Your task to perform on an android device: open a bookmark in the chrome app Image 0: 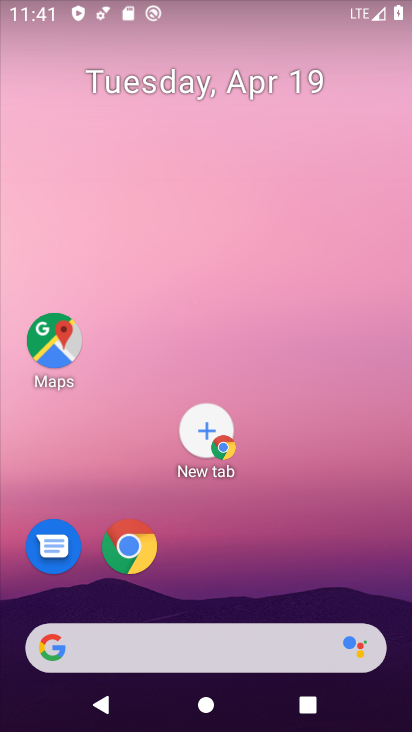
Step 0: click (137, 553)
Your task to perform on an android device: open a bookmark in the chrome app Image 1: 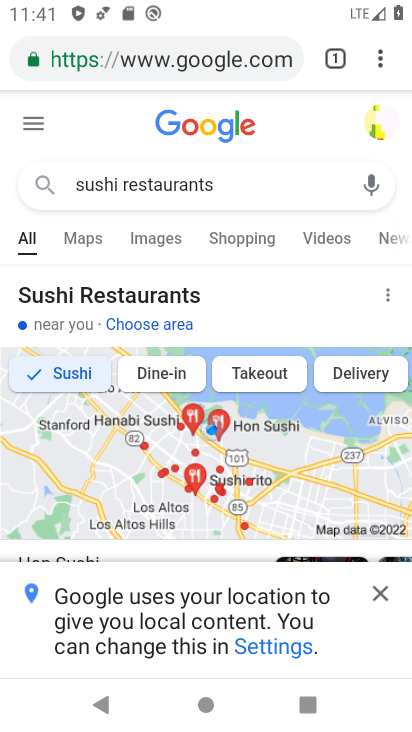
Step 1: click (374, 52)
Your task to perform on an android device: open a bookmark in the chrome app Image 2: 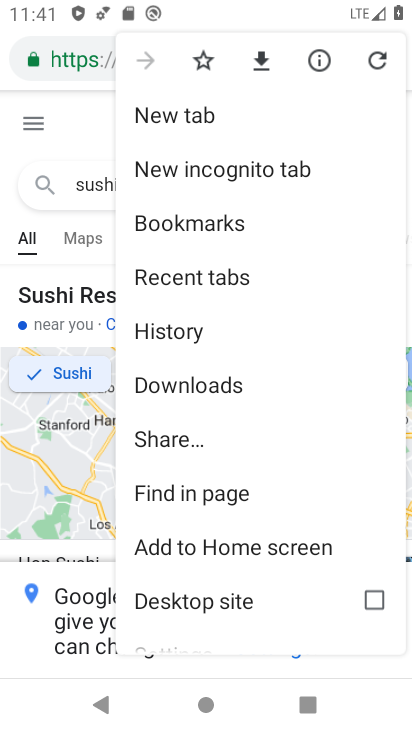
Step 2: click (199, 236)
Your task to perform on an android device: open a bookmark in the chrome app Image 3: 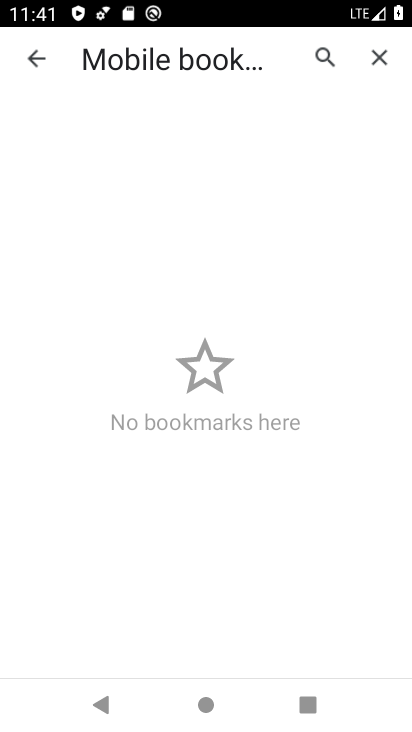
Step 3: task complete